Your task to perform on an android device: Go to display settings Image 0: 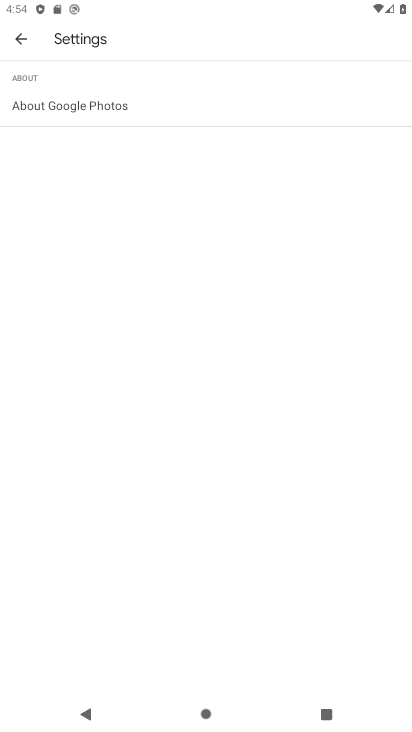
Step 0: press home button
Your task to perform on an android device: Go to display settings Image 1: 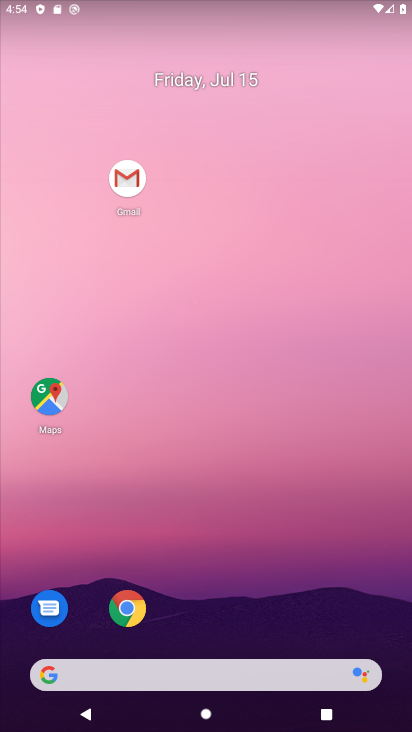
Step 1: drag from (211, 402) to (215, 154)
Your task to perform on an android device: Go to display settings Image 2: 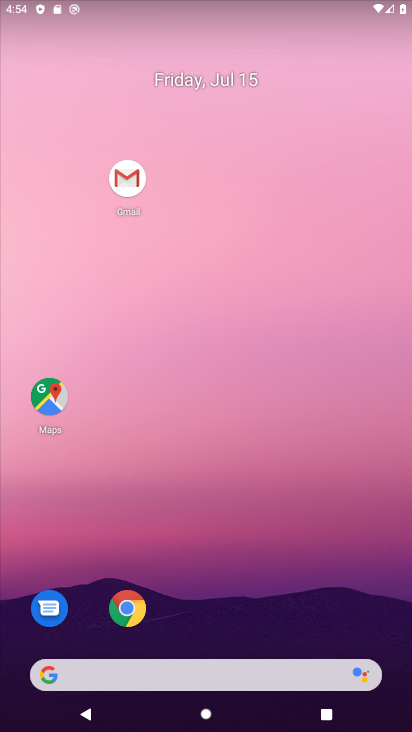
Step 2: drag from (220, 597) to (264, 88)
Your task to perform on an android device: Go to display settings Image 3: 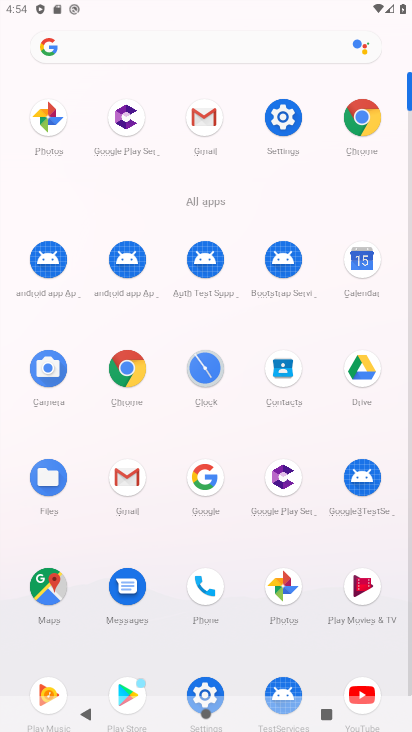
Step 3: click (267, 117)
Your task to perform on an android device: Go to display settings Image 4: 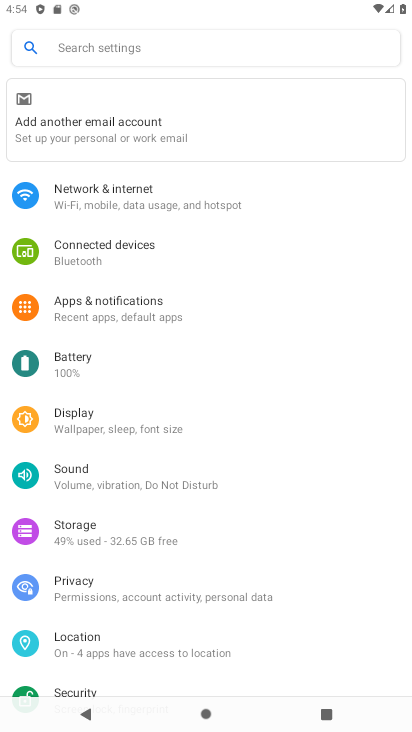
Step 4: click (172, 421)
Your task to perform on an android device: Go to display settings Image 5: 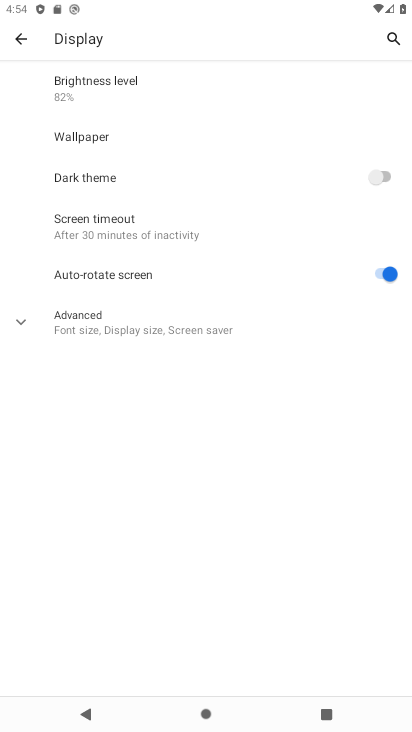
Step 5: task complete